Your task to perform on an android device: Search for usb-c on costco.com, select the first entry, and add it to the cart. Image 0: 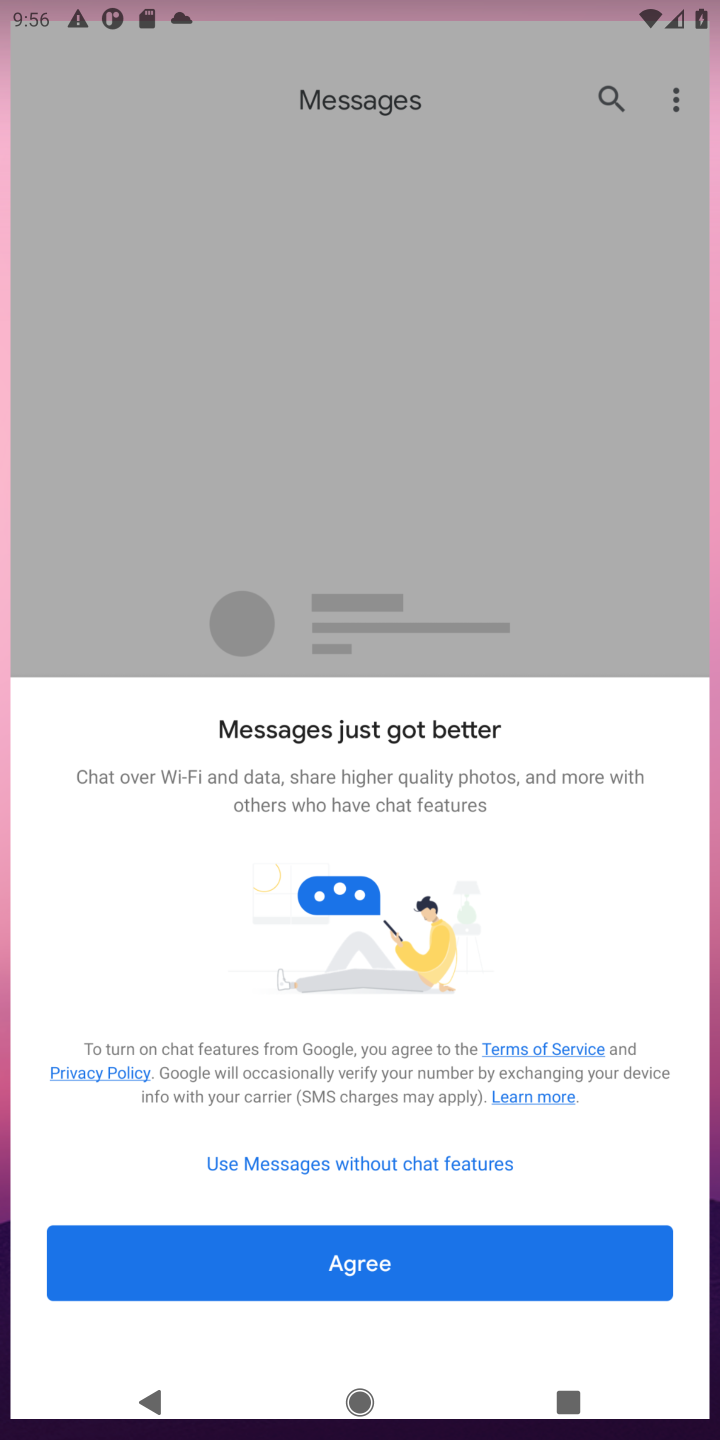
Step 0: click (514, 1130)
Your task to perform on an android device: Search for usb-c on costco.com, select the first entry, and add it to the cart. Image 1: 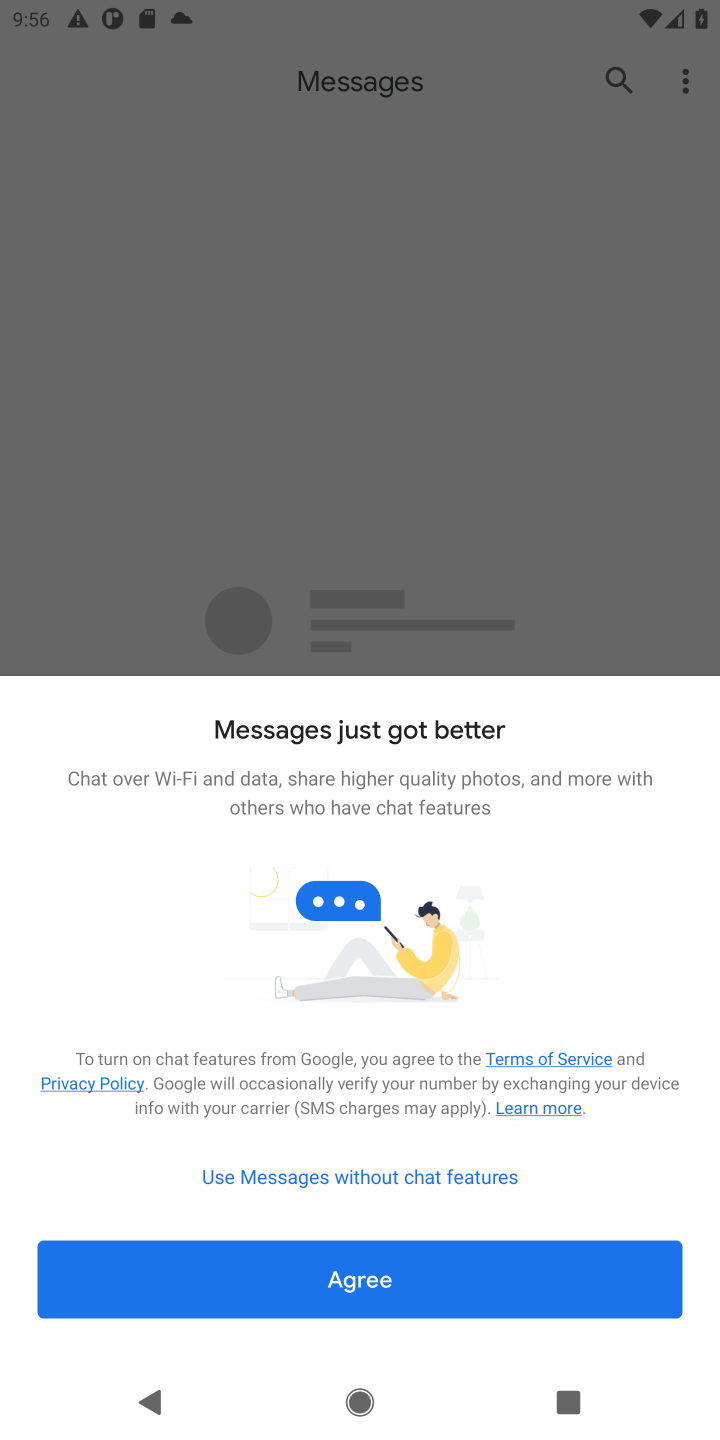
Step 1: press home button
Your task to perform on an android device: Search for usb-c on costco.com, select the first entry, and add it to the cart. Image 2: 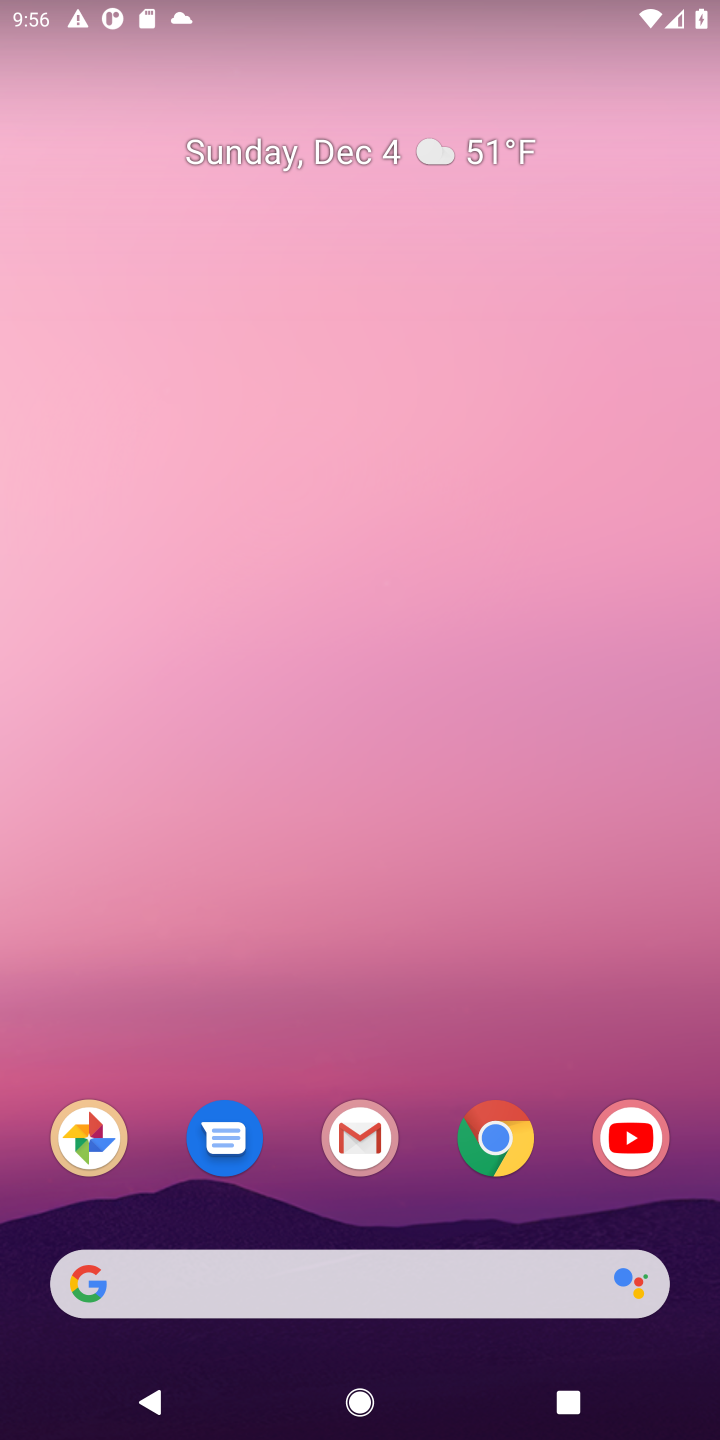
Step 2: click (514, 1147)
Your task to perform on an android device: Search for usb-c on costco.com, select the first entry, and add it to the cart. Image 3: 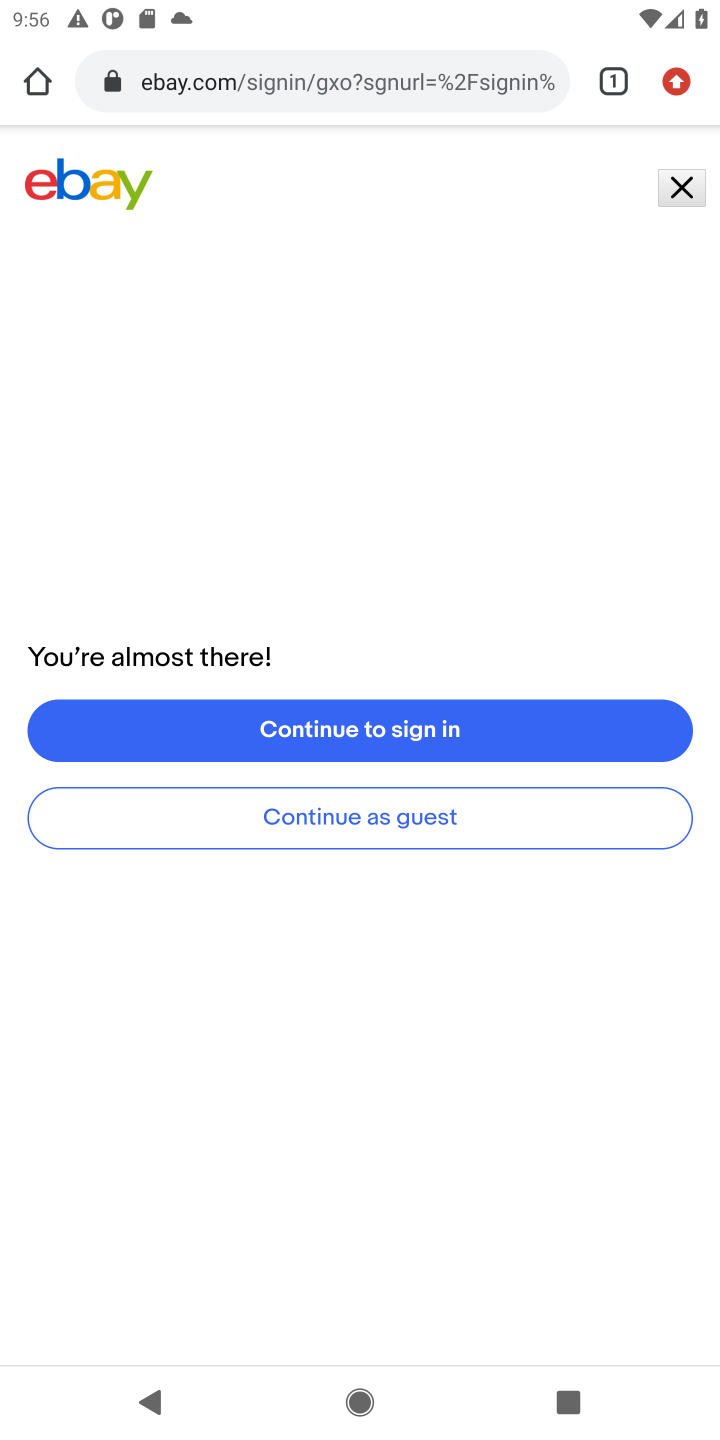
Step 3: press home button
Your task to perform on an android device: Search for usb-c on costco.com, select the first entry, and add it to the cart. Image 4: 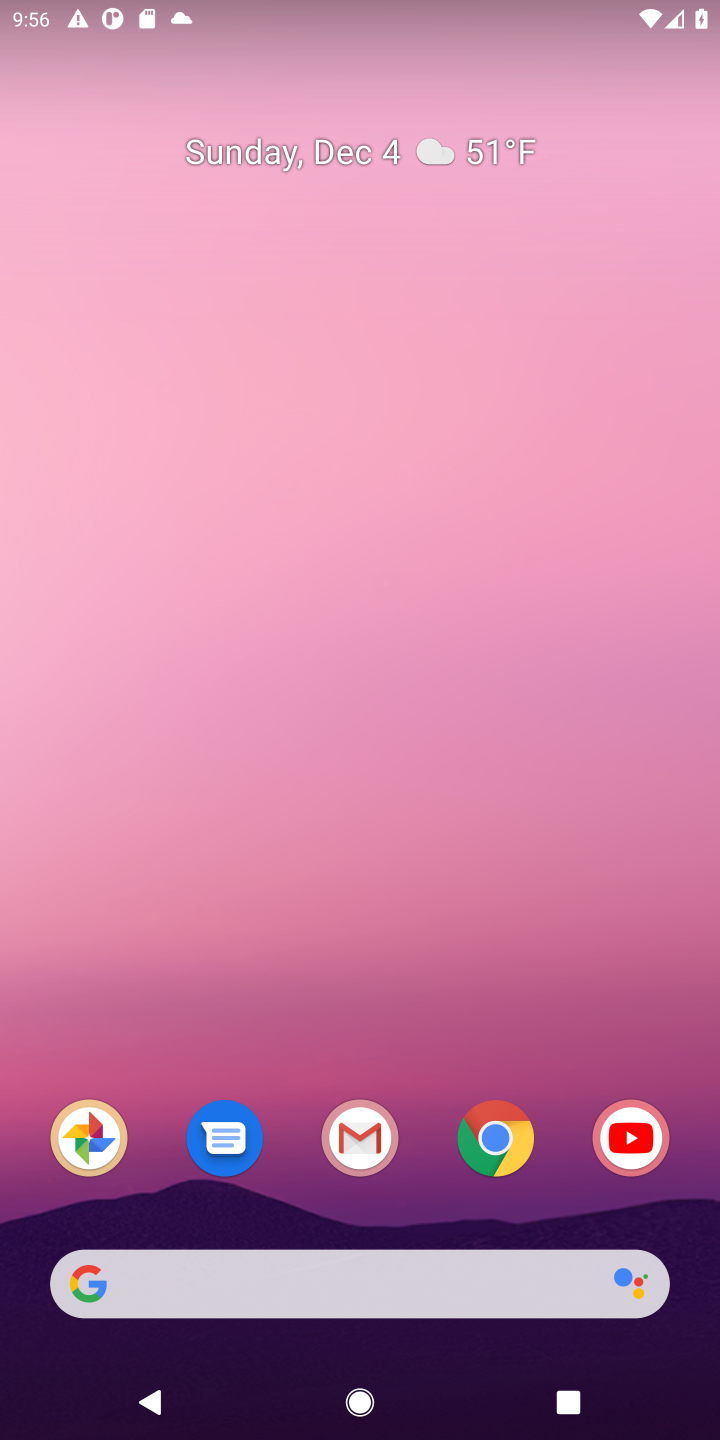
Step 4: click (511, 1143)
Your task to perform on an android device: Search for usb-c on costco.com, select the first entry, and add it to the cart. Image 5: 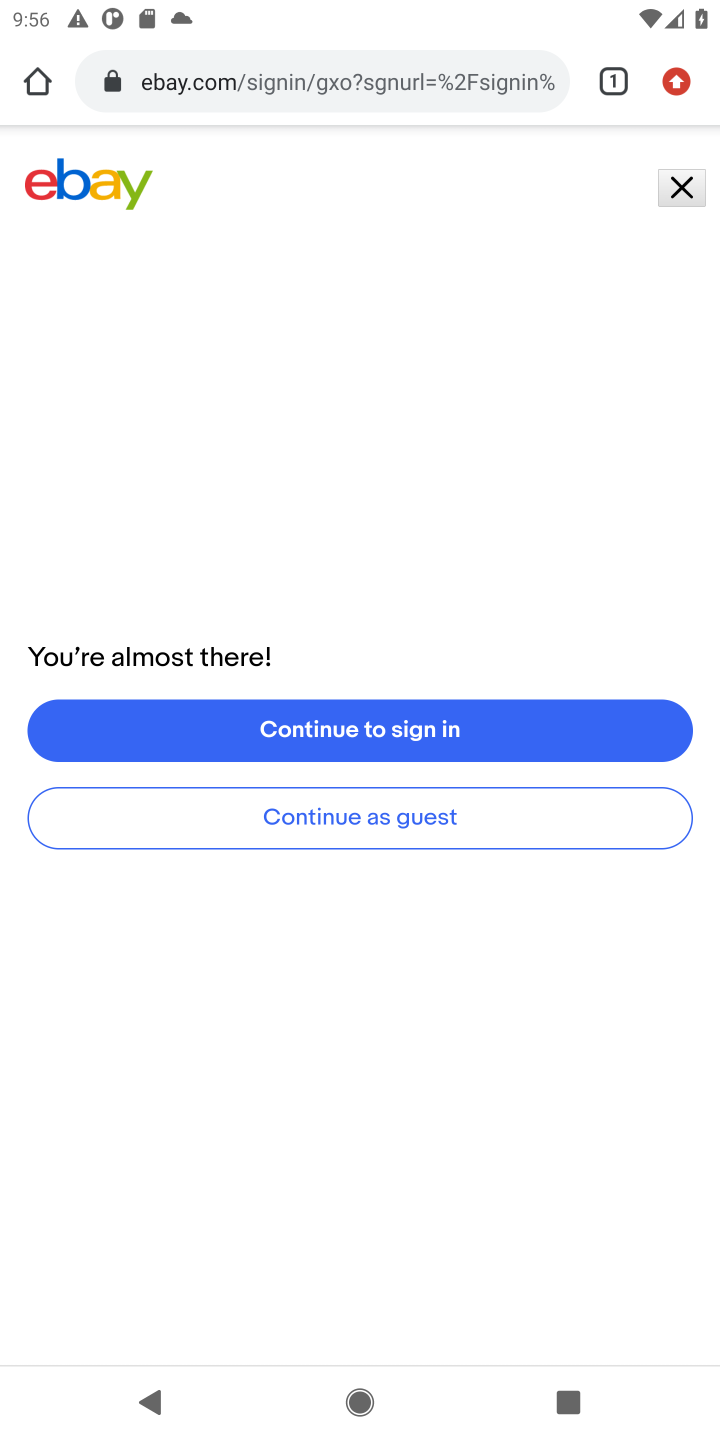
Step 5: click (470, 91)
Your task to perform on an android device: Search for usb-c on costco.com, select the first entry, and add it to the cart. Image 6: 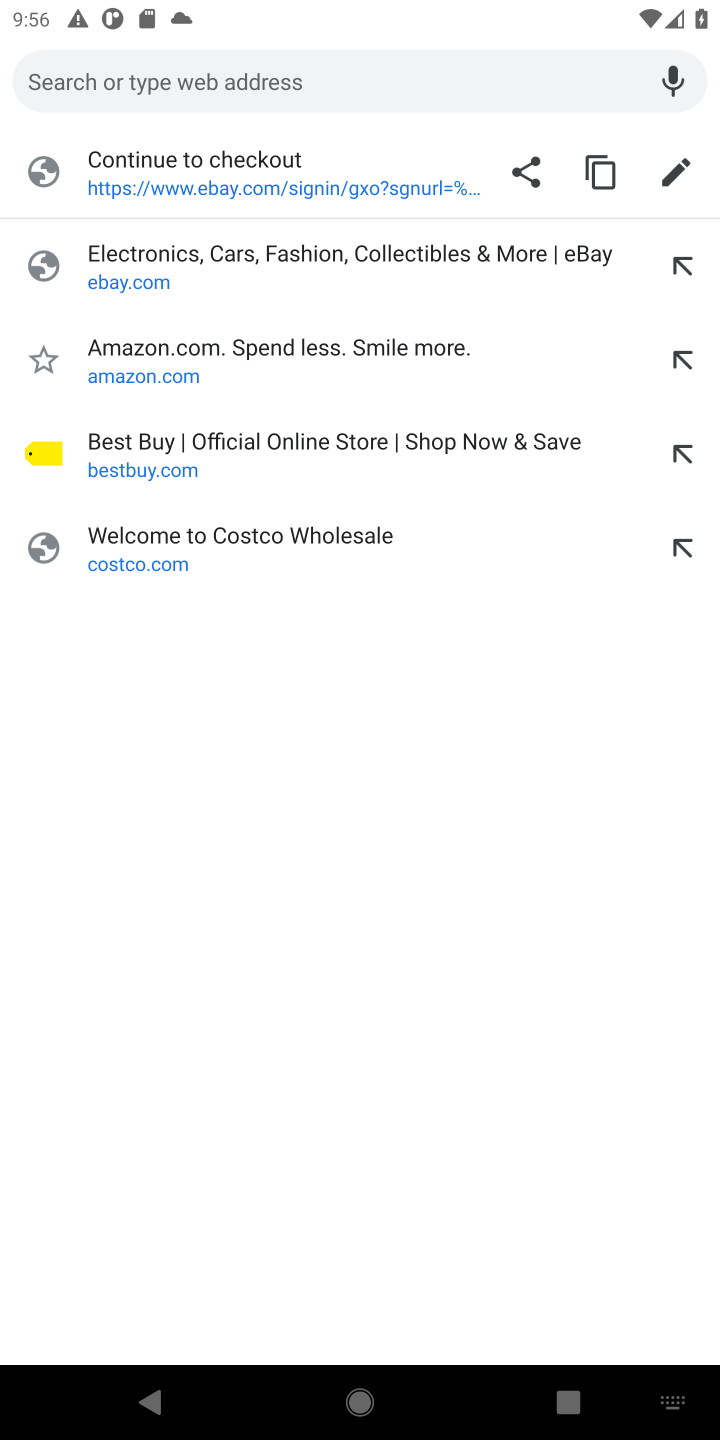
Step 6: click (222, 525)
Your task to perform on an android device: Search for usb-c on costco.com, select the first entry, and add it to the cart. Image 7: 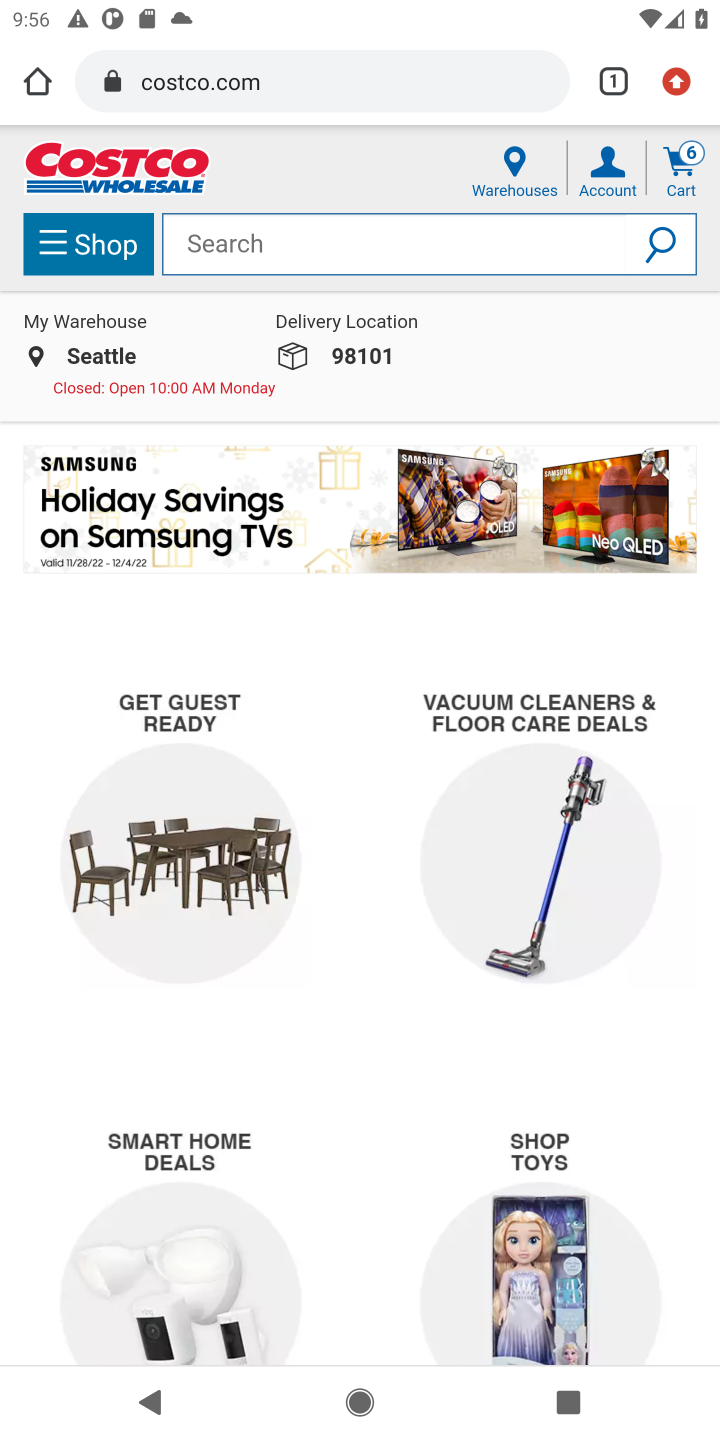
Step 7: click (360, 249)
Your task to perform on an android device: Search for usb-c on costco.com, select the first entry, and add it to the cart. Image 8: 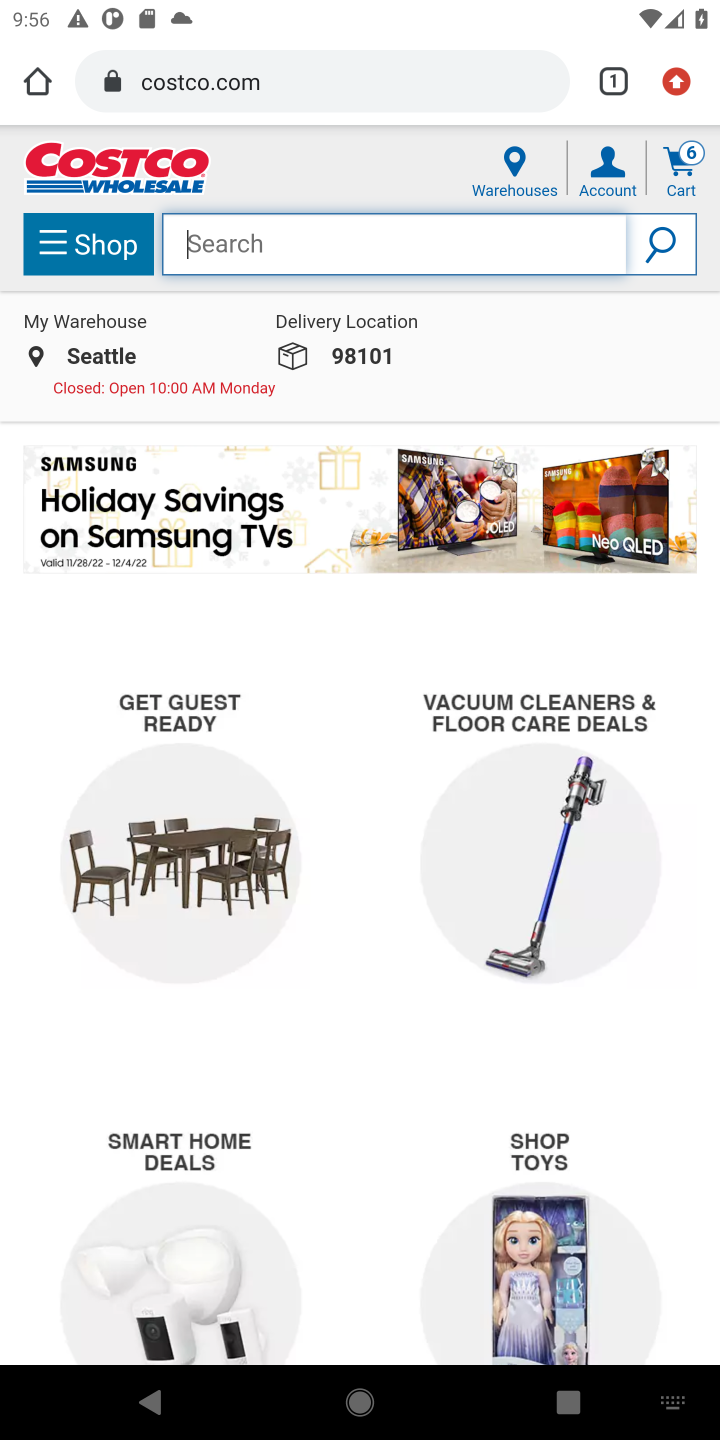
Step 8: type "usb-c"
Your task to perform on an android device: Search for usb-c on costco.com, select the first entry, and add it to the cart. Image 9: 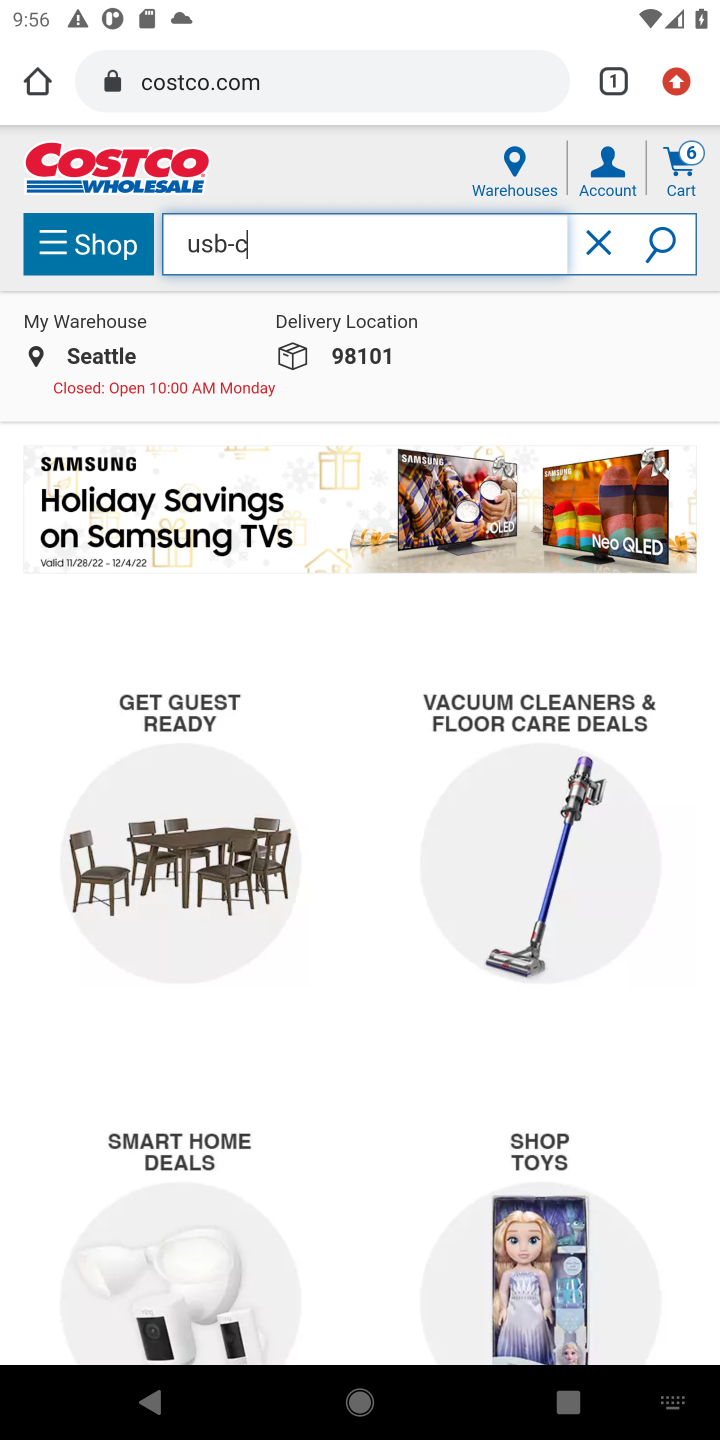
Step 9: press enter
Your task to perform on an android device: Search for usb-c on costco.com, select the first entry, and add it to the cart. Image 10: 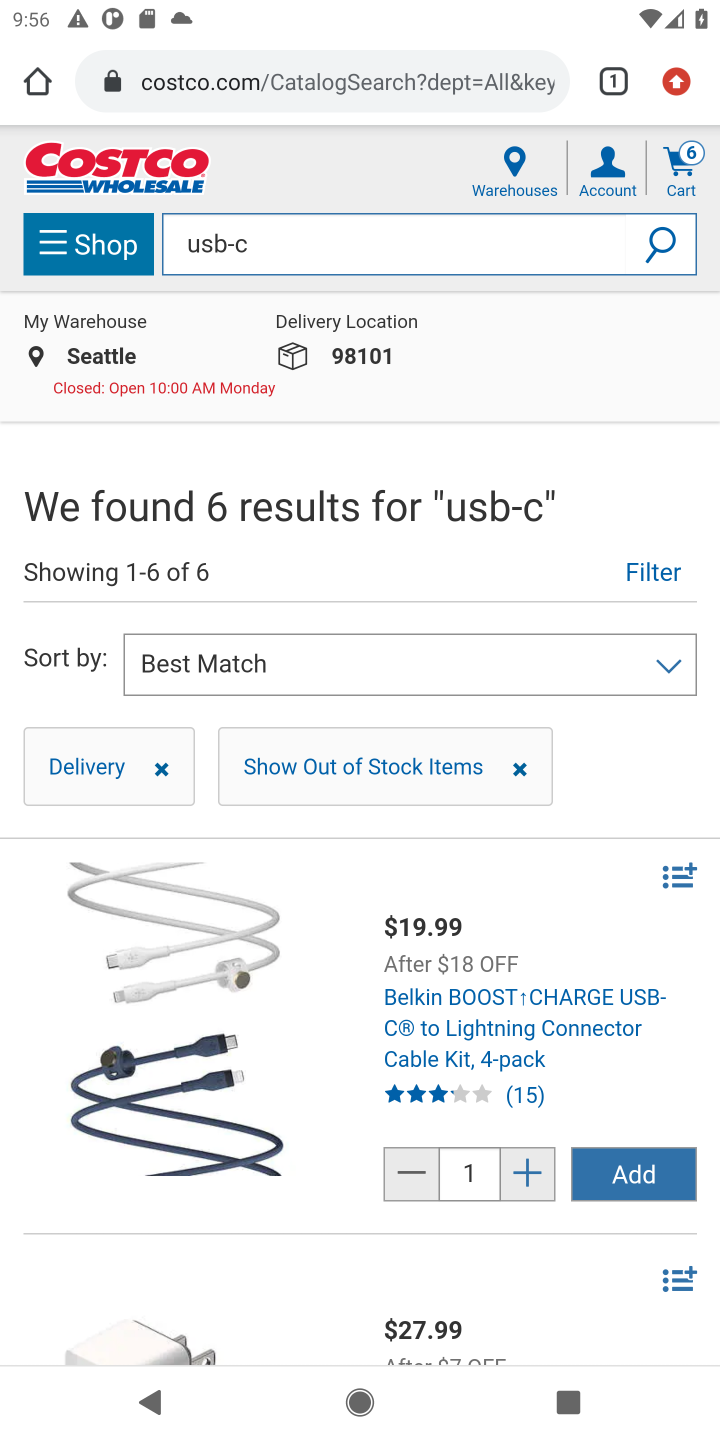
Step 10: click (212, 980)
Your task to perform on an android device: Search for usb-c on costco.com, select the first entry, and add it to the cart. Image 11: 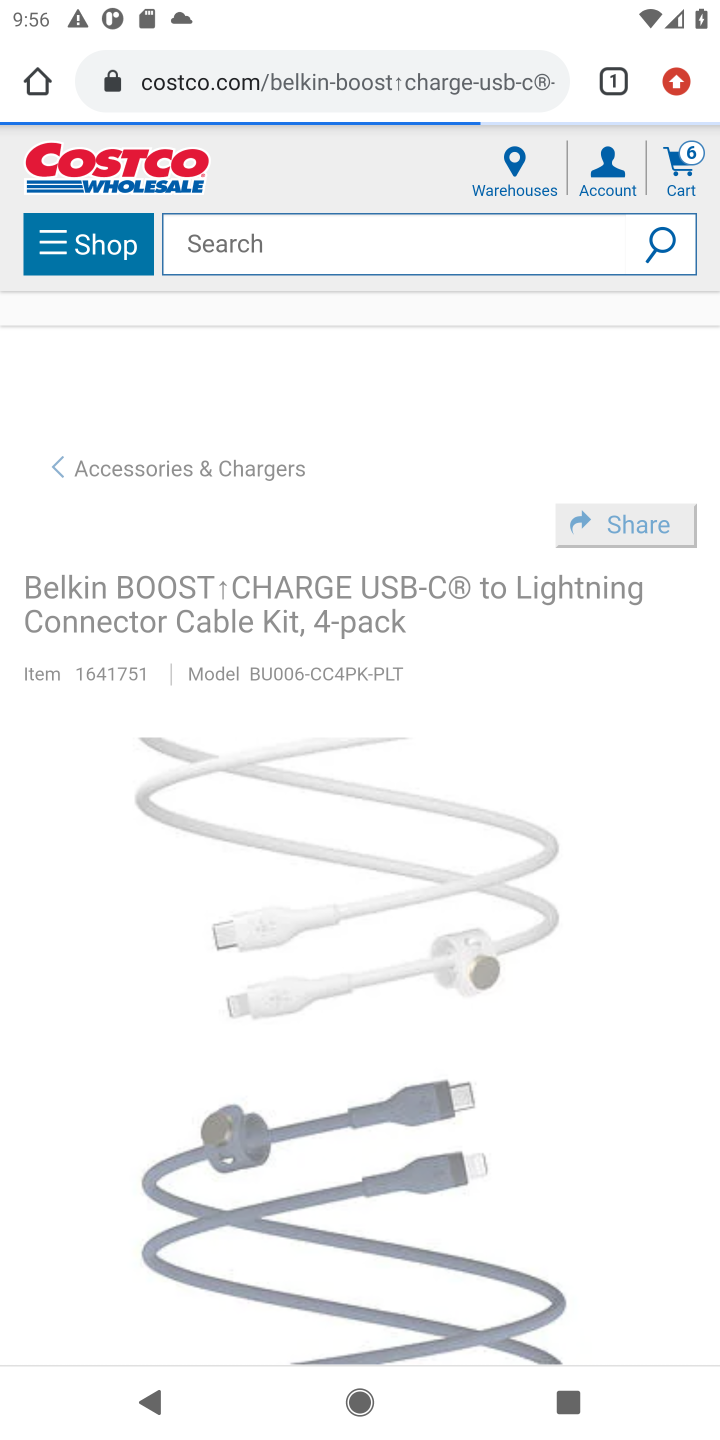
Step 11: drag from (595, 551) to (636, 258)
Your task to perform on an android device: Search for usb-c on costco.com, select the first entry, and add it to the cart. Image 12: 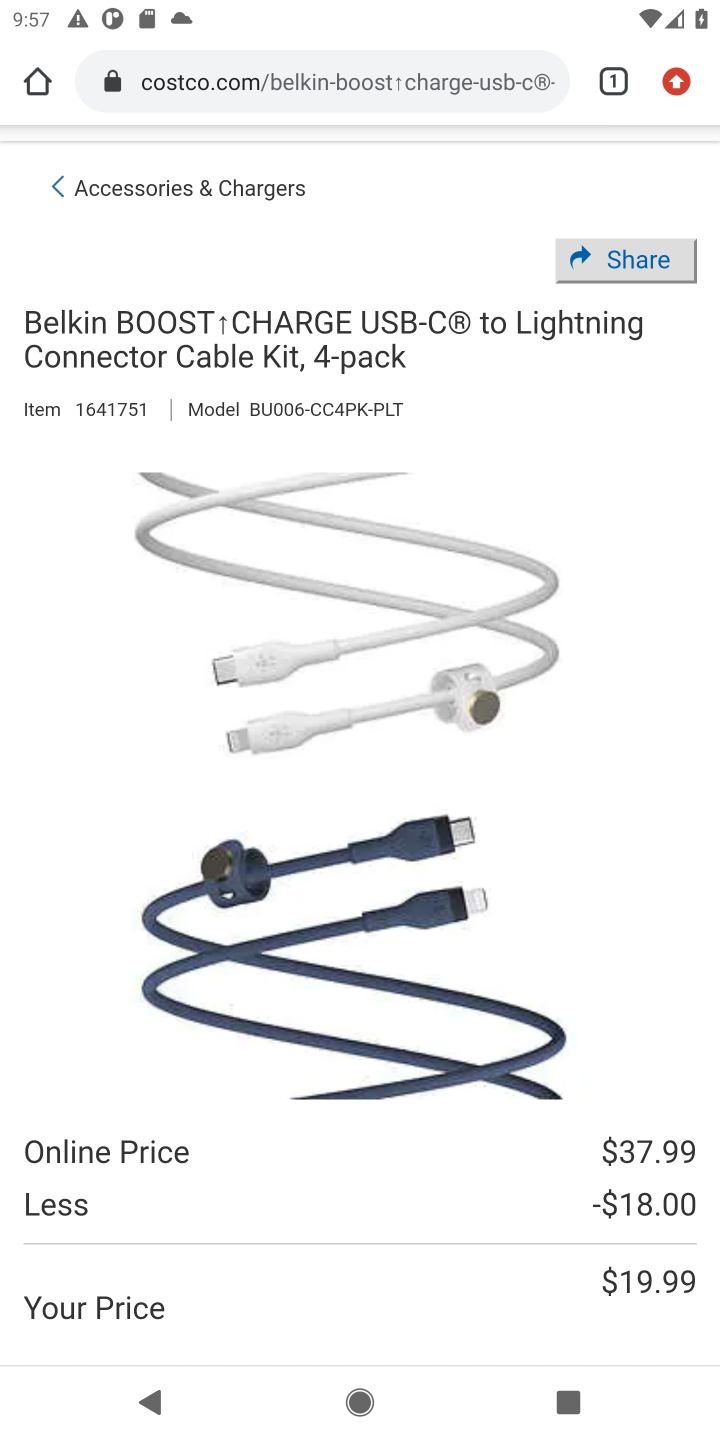
Step 12: drag from (579, 923) to (637, 369)
Your task to perform on an android device: Search for usb-c on costco.com, select the first entry, and add it to the cart. Image 13: 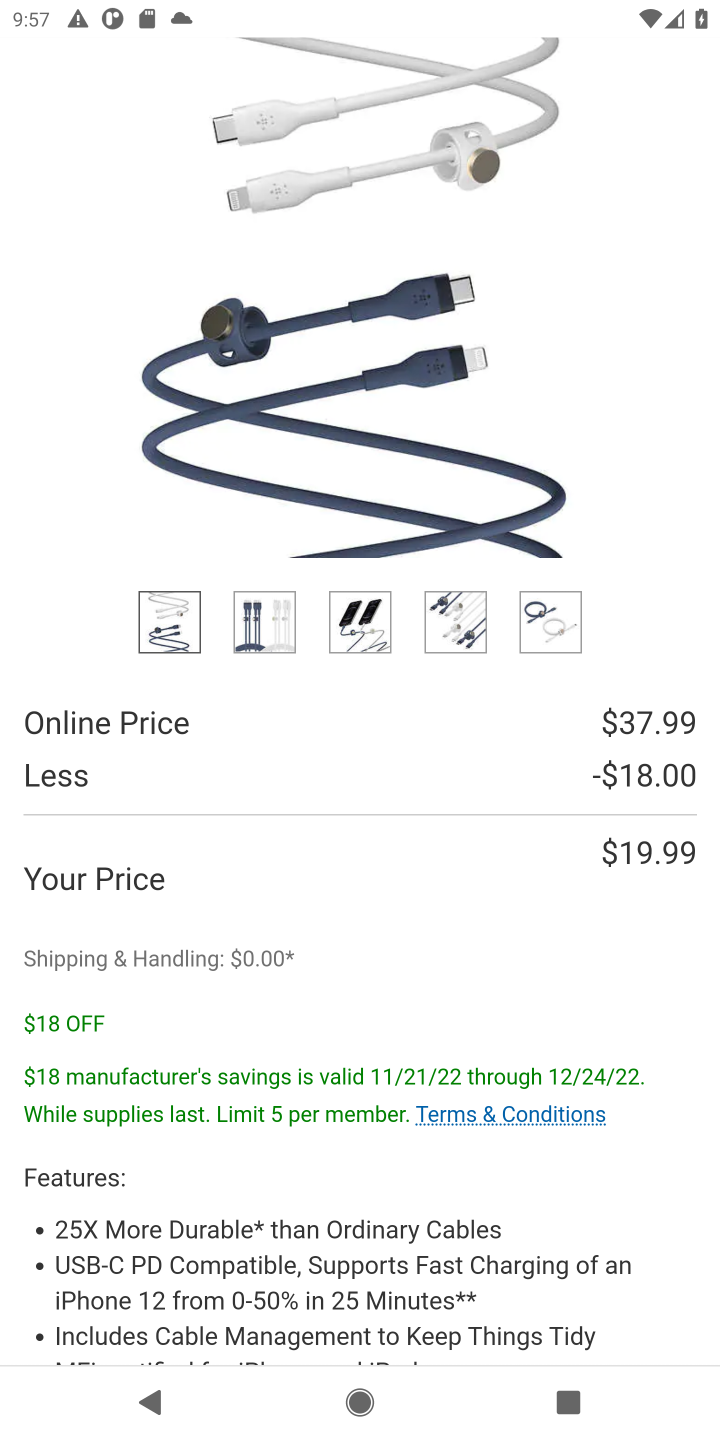
Step 13: drag from (515, 847) to (532, 312)
Your task to perform on an android device: Search for usb-c on costco.com, select the first entry, and add it to the cart. Image 14: 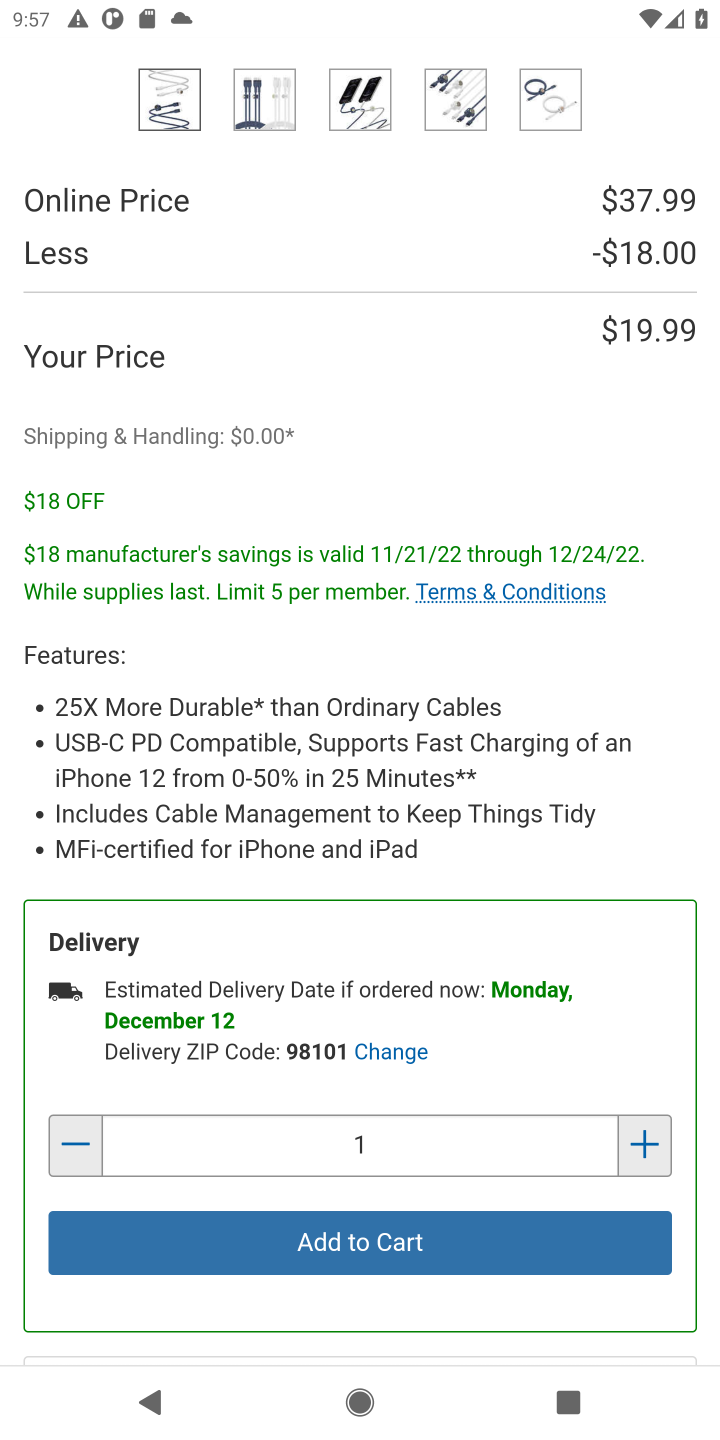
Step 14: click (388, 1259)
Your task to perform on an android device: Search for usb-c on costco.com, select the first entry, and add it to the cart. Image 15: 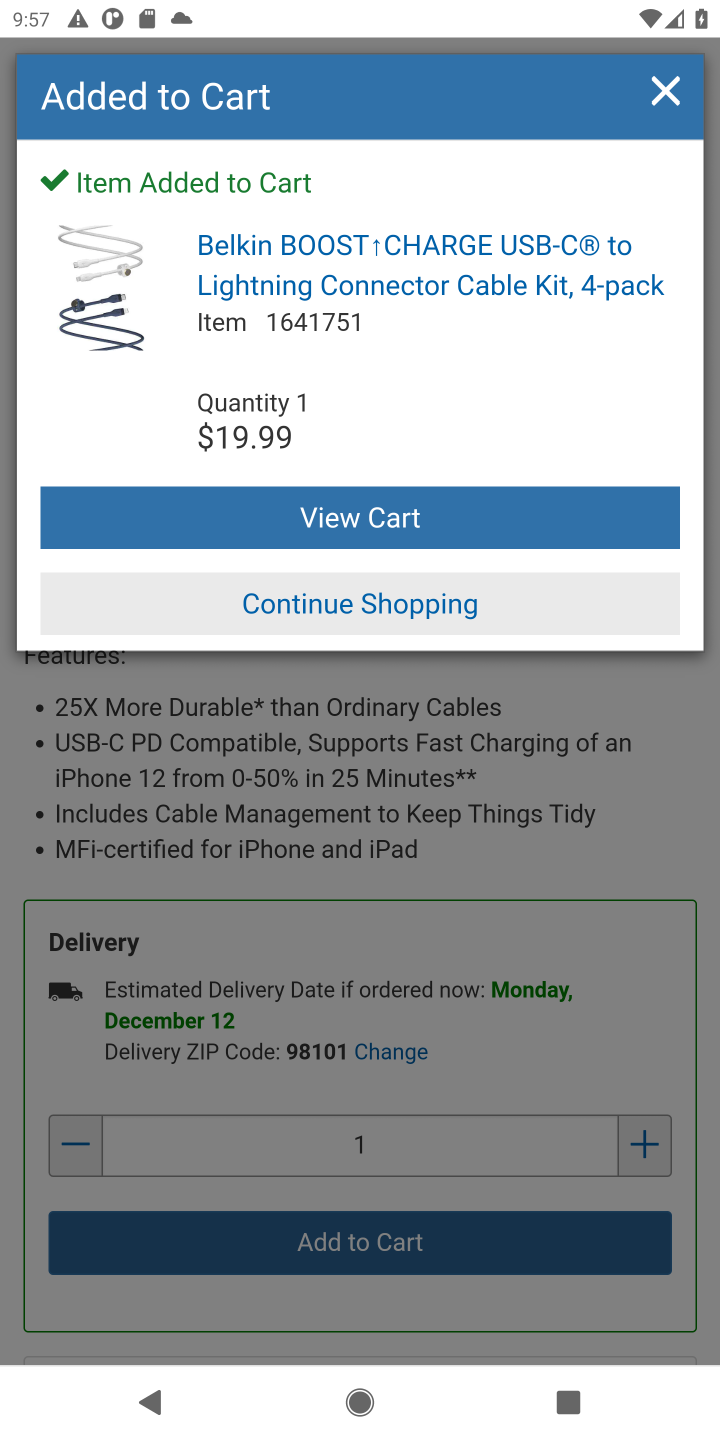
Step 15: click (398, 503)
Your task to perform on an android device: Search for usb-c on costco.com, select the first entry, and add it to the cart. Image 16: 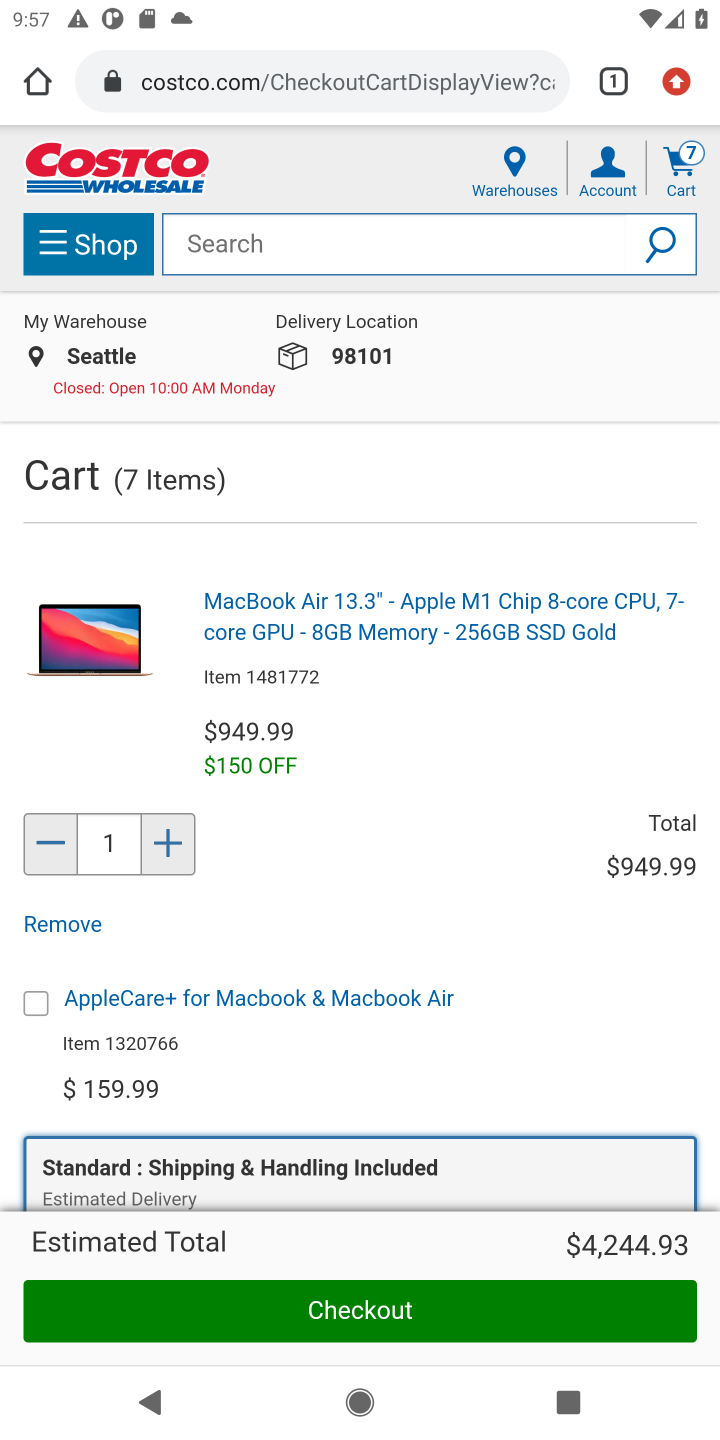
Step 16: task complete